Your task to perform on an android device: Clear the cart on costco.com. Image 0: 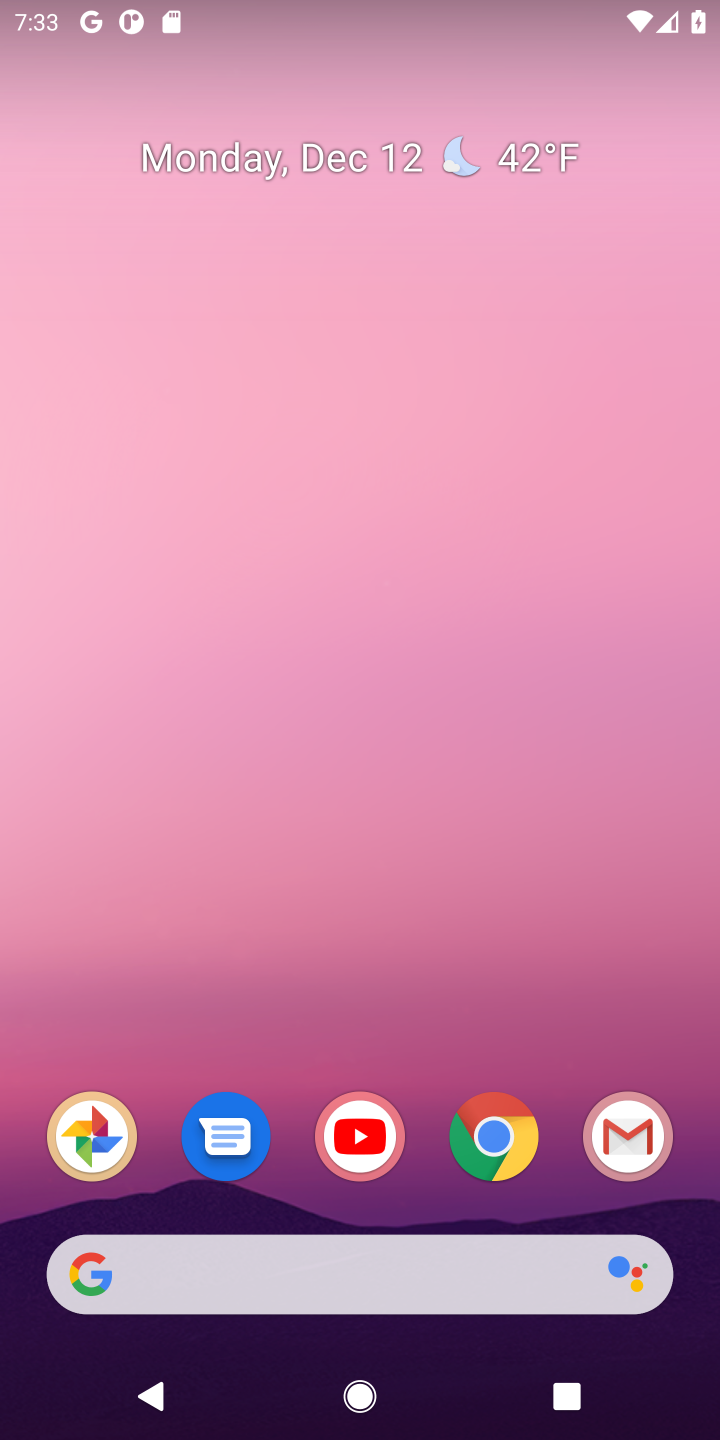
Step 0: click (502, 1146)
Your task to perform on an android device: Clear the cart on costco.com. Image 1: 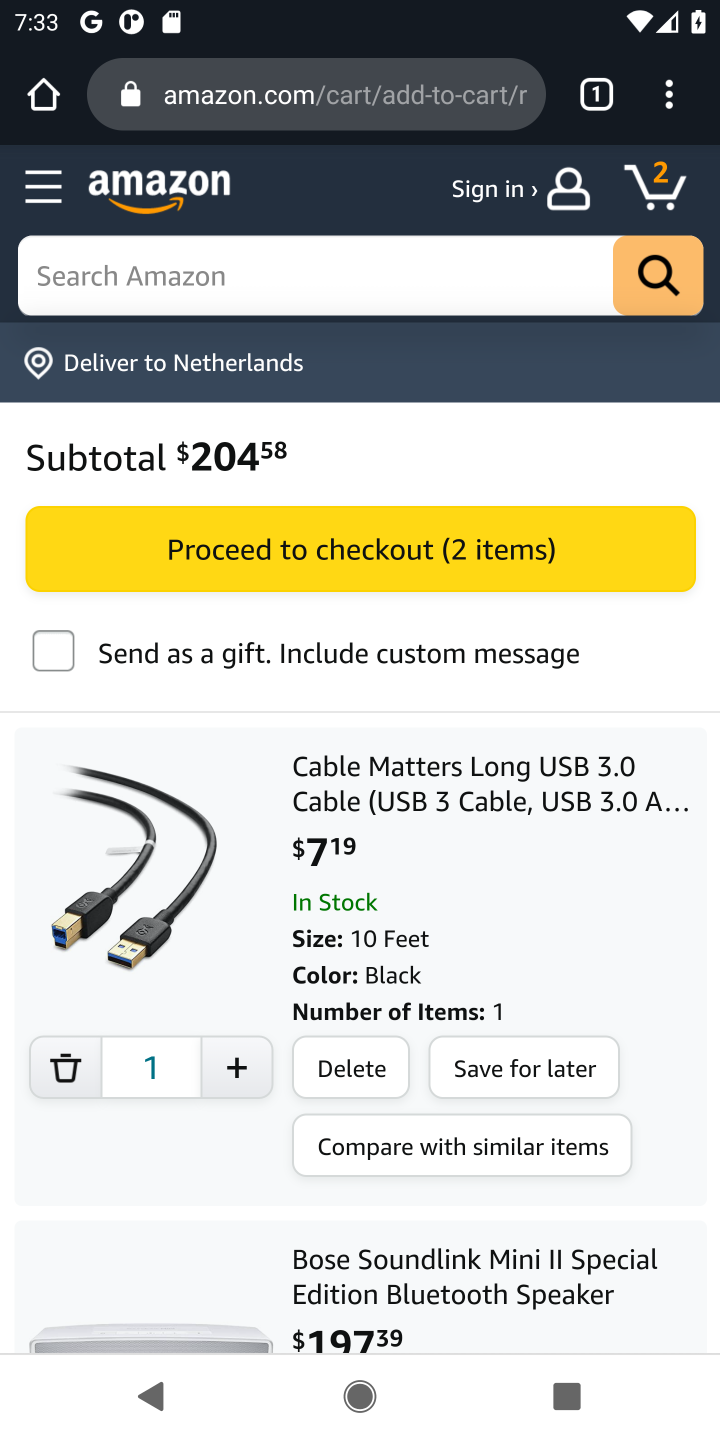
Step 1: click (258, 93)
Your task to perform on an android device: Clear the cart on costco.com. Image 2: 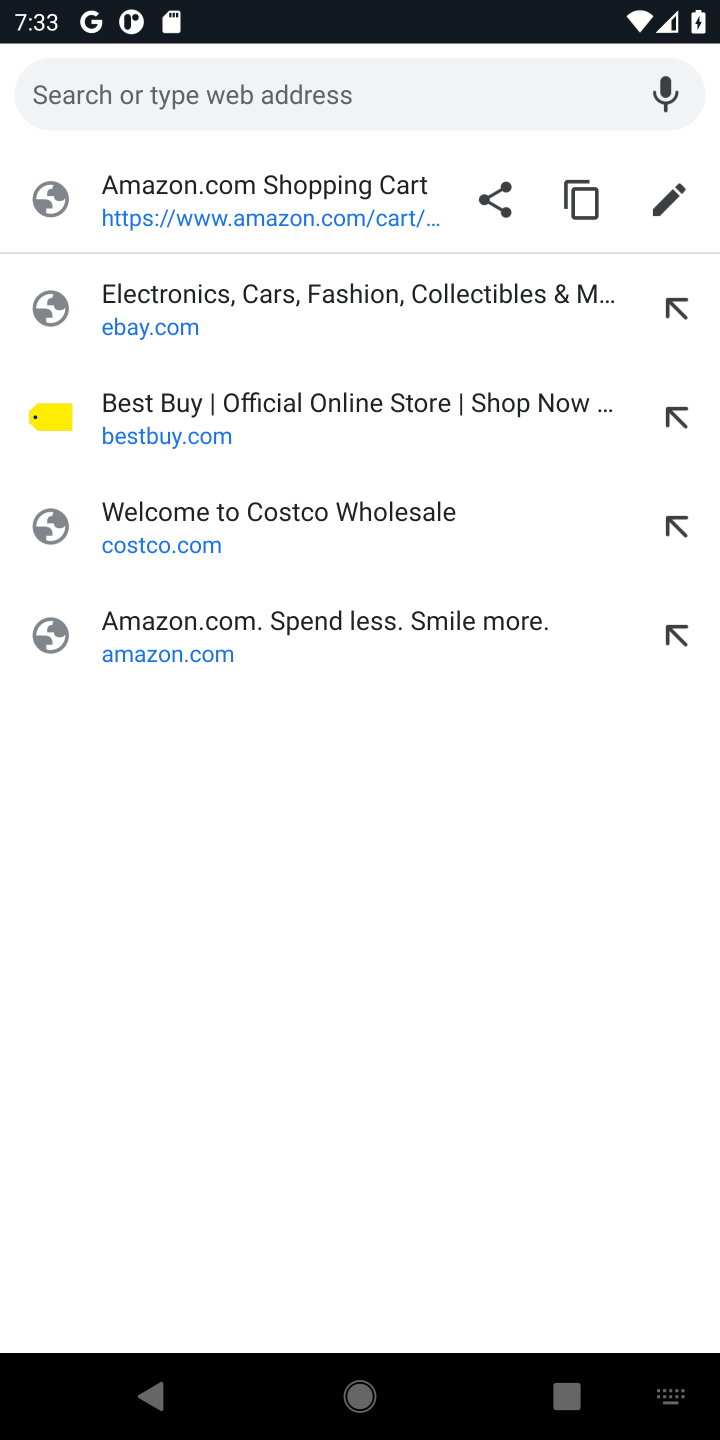
Step 2: click (166, 509)
Your task to perform on an android device: Clear the cart on costco.com. Image 3: 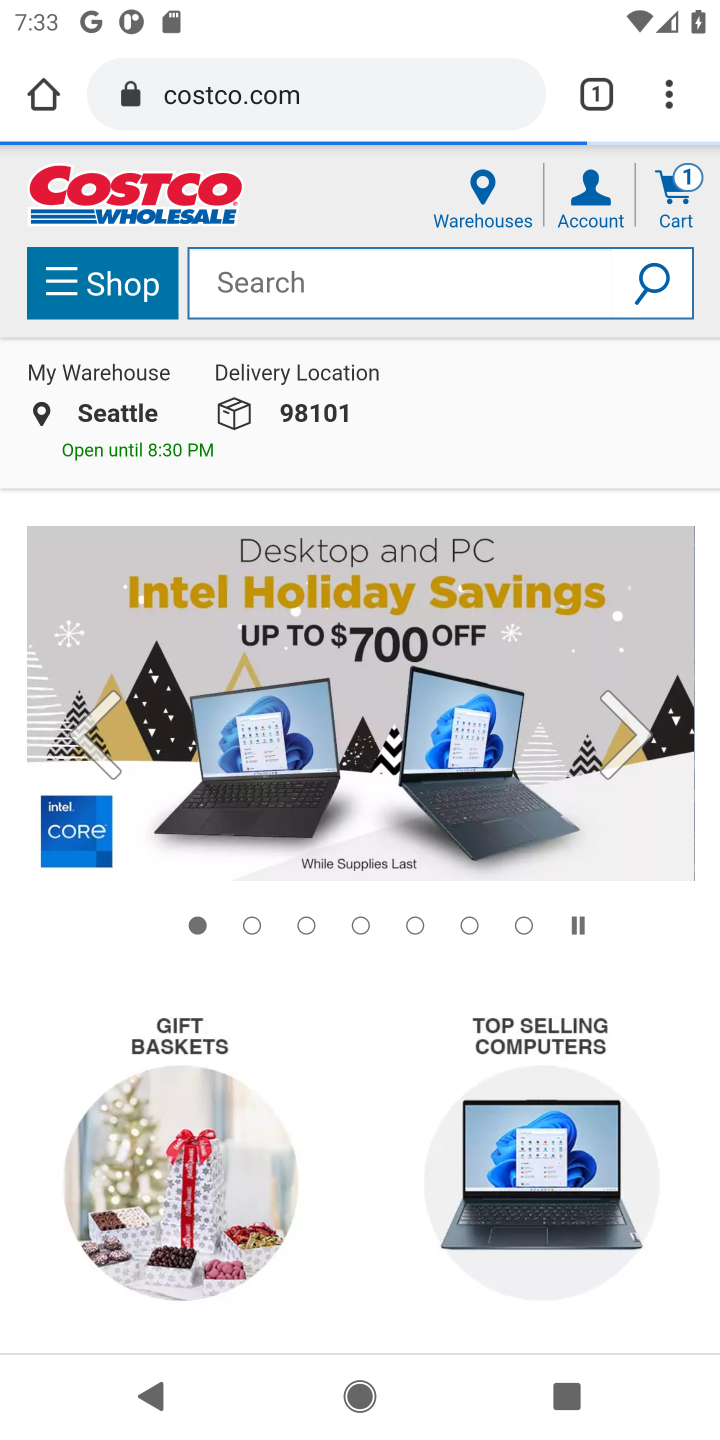
Step 3: click (670, 210)
Your task to perform on an android device: Clear the cart on costco.com. Image 4: 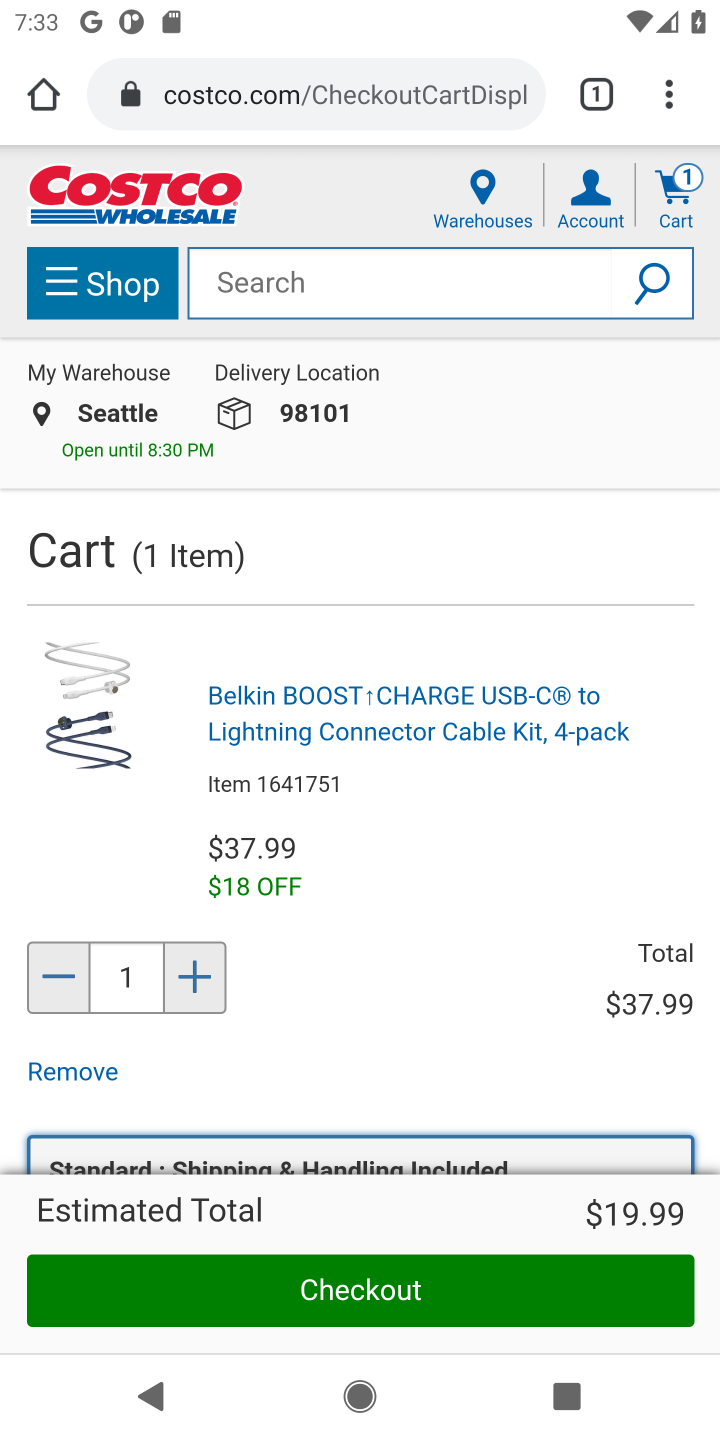
Step 4: drag from (471, 779) to (471, 392)
Your task to perform on an android device: Clear the cart on costco.com. Image 5: 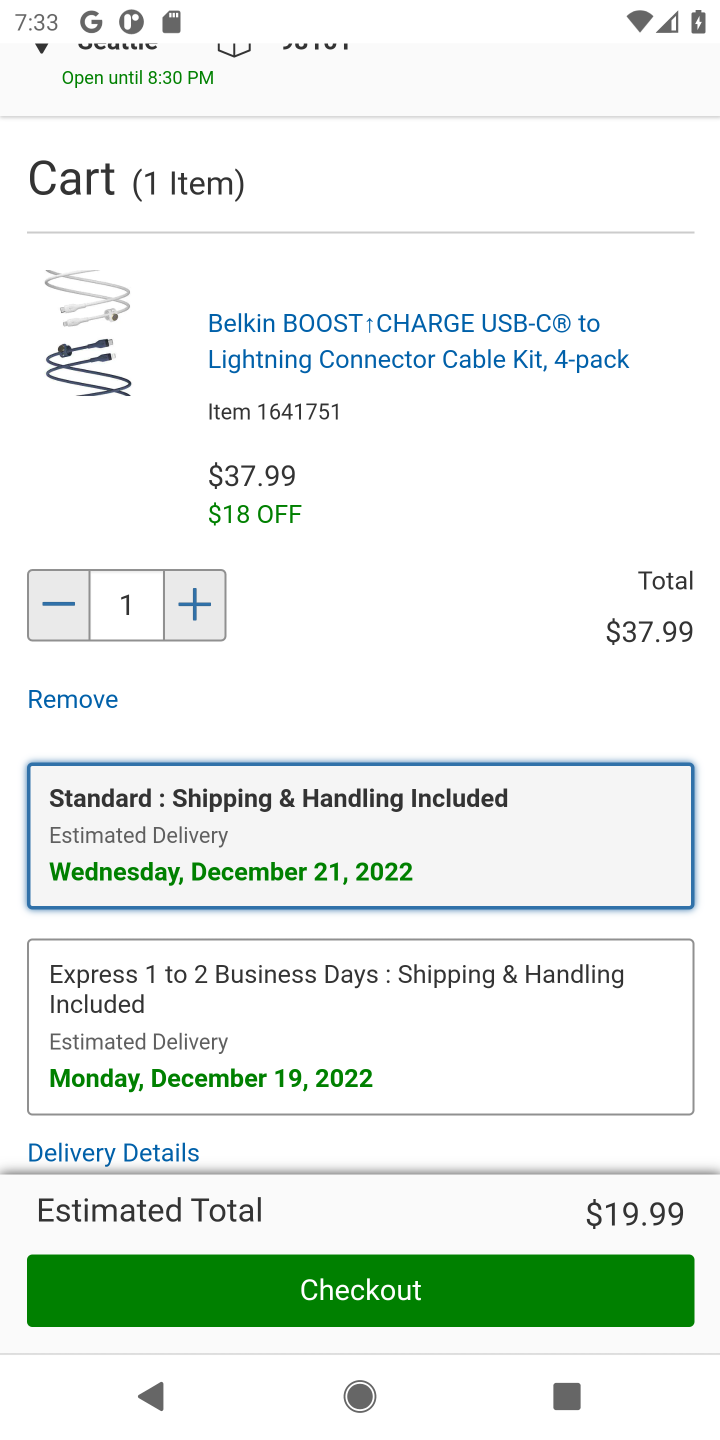
Step 5: drag from (325, 1071) to (381, 625)
Your task to perform on an android device: Clear the cart on costco.com. Image 6: 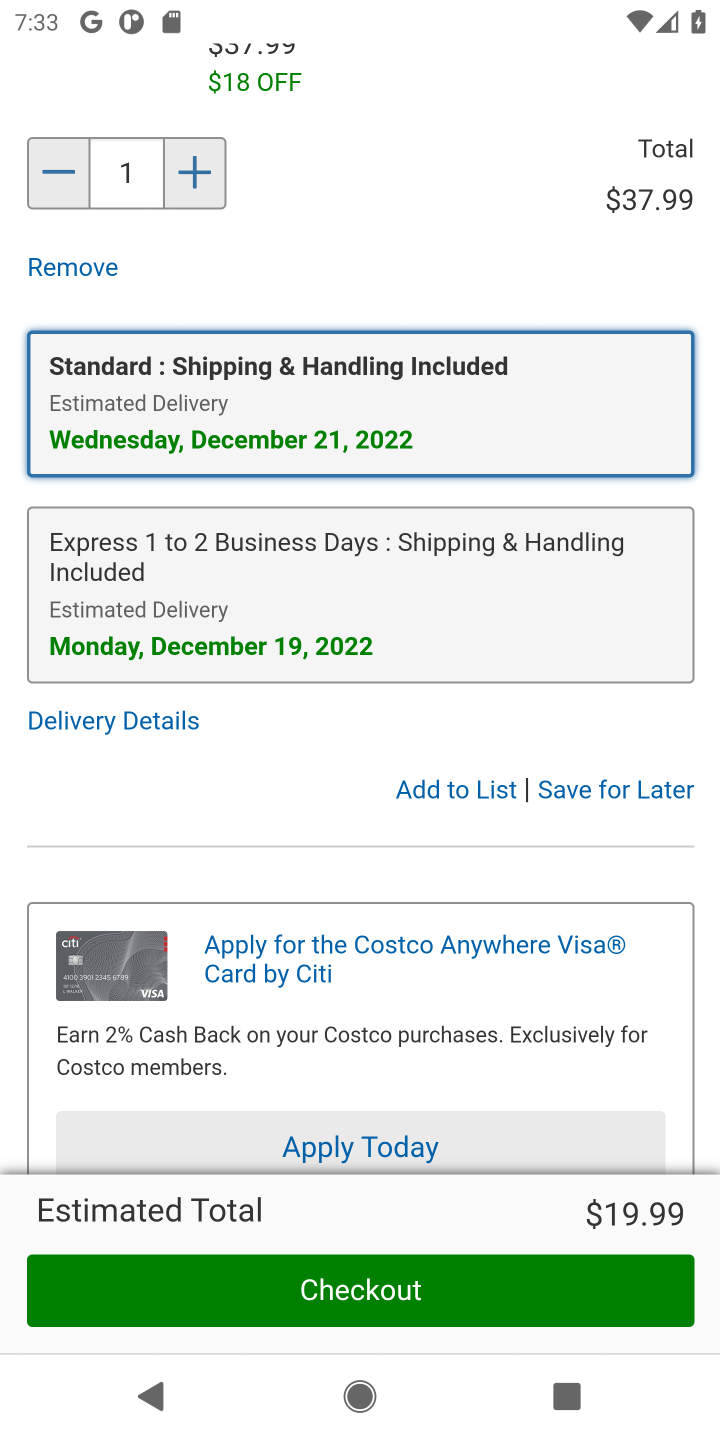
Step 6: click (586, 799)
Your task to perform on an android device: Clear the cart on costco.com. Image 7: 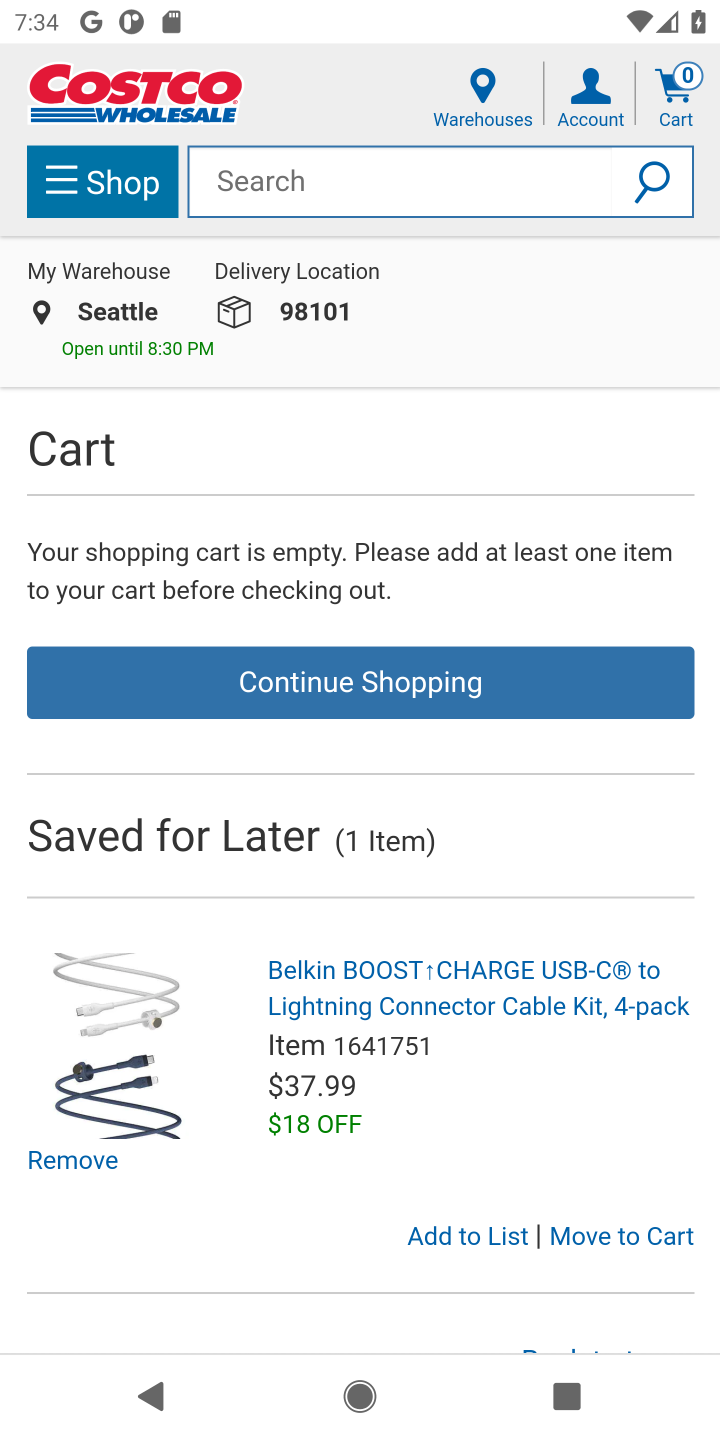
Step 7: task complete